Your task to perform on an android device: install app "Expedia: Hotels, Flights & Car" Image 0: 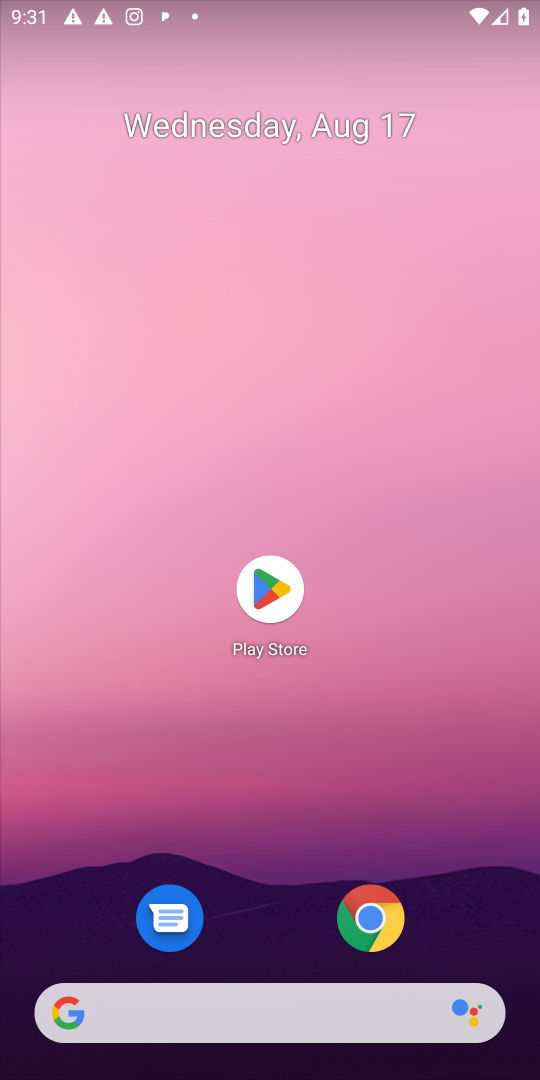
Step 0: click (252, 593)
Your task to perform on an android device: install app "Expedia: Hotels, Flights & Car" Image 1: 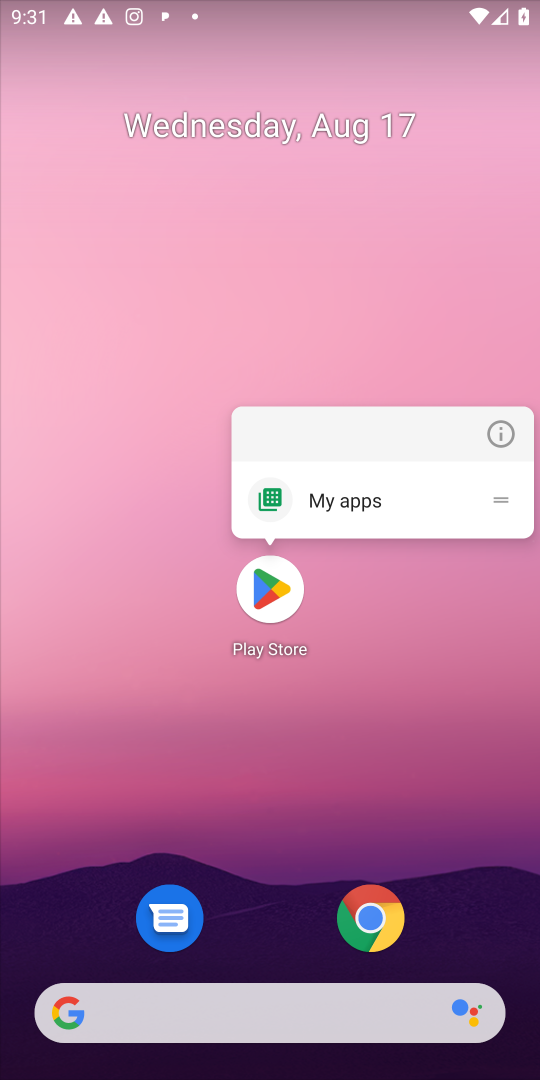
Step 1: click (264, 586)
Your task to perform on an android device: install app "Expedia: Hotels, Flights & Car" Image 2: 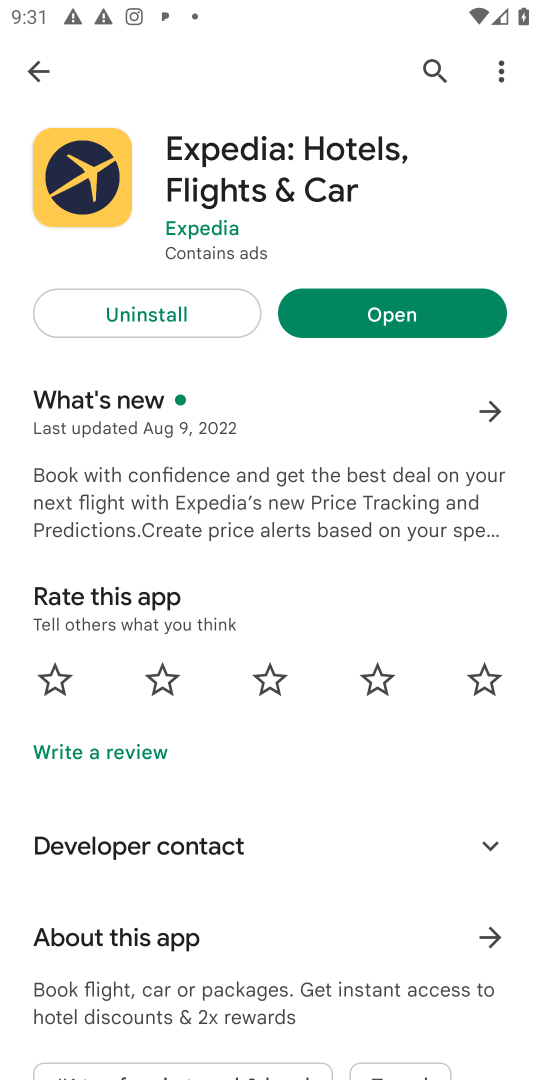
Step 2: task complete